Your task to perform on an android device: change notifications settings Image 0: 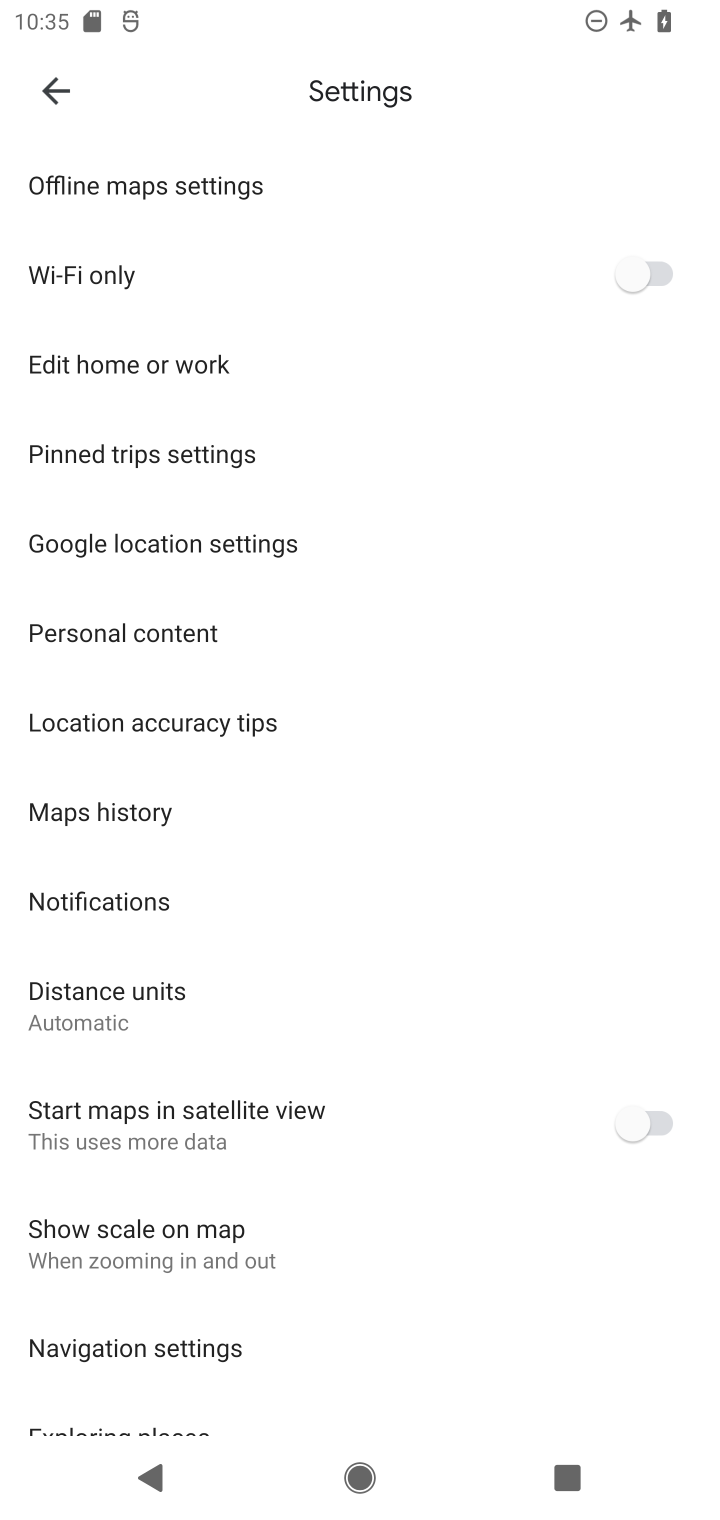
Step 0: task complete